Your task to perform on an android device: open app "Pinterest" (install if not already installed) Image 0: 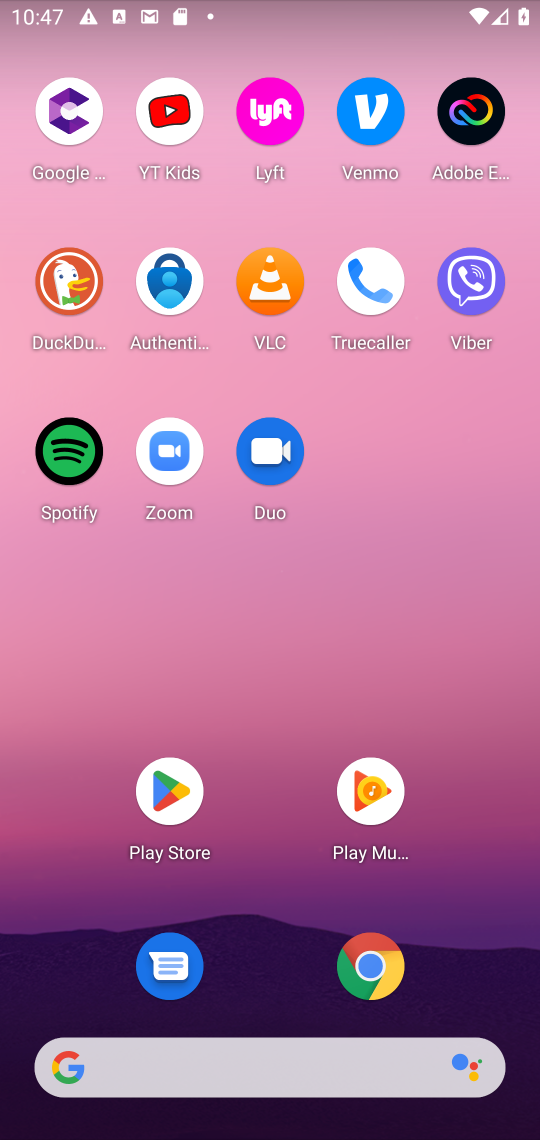
Step 0: click (176, 815)
Your task to perform on an android device: open app "Pinterest" (install if not already installed) Image 1: 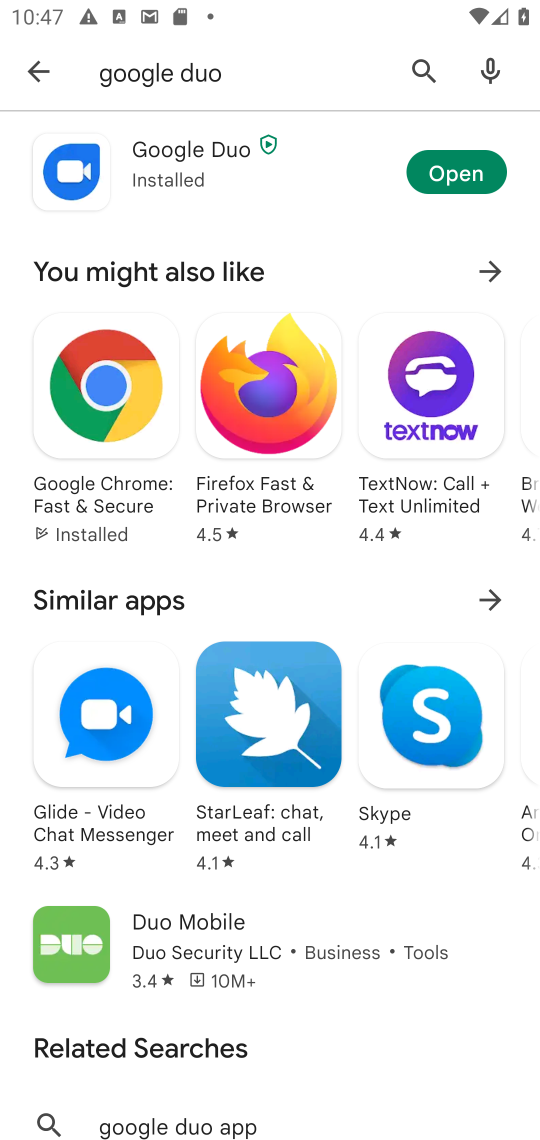
Step 1: click (409, 64)
Your task to perform on an android device: open app "Pinterest" (install if not already installed) Image 2: 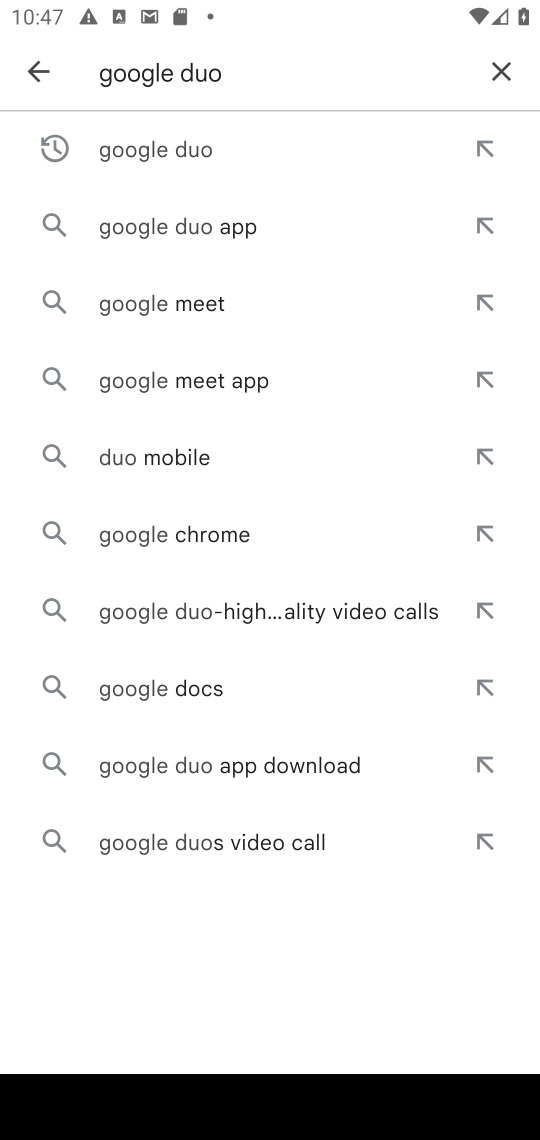
Step 2: click (501, 66)
Your task to perform on an android device: open app "Pinterest" (install if not already installed) Image 3: 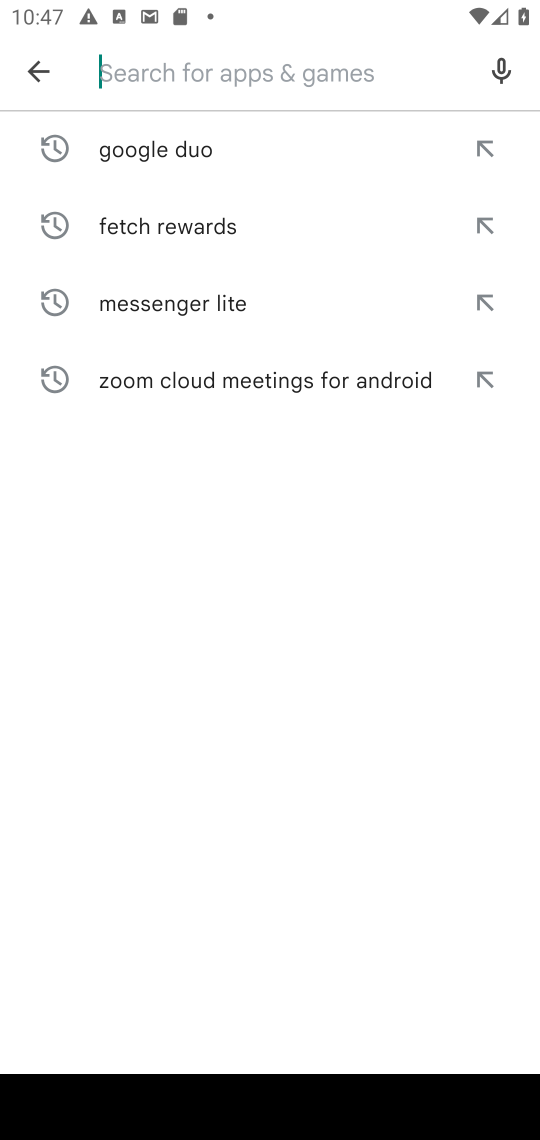
Step 3: type "Pinterest"
Your task to perform on an android device: open app "Pinterest" (install if not already installed) Image 4: 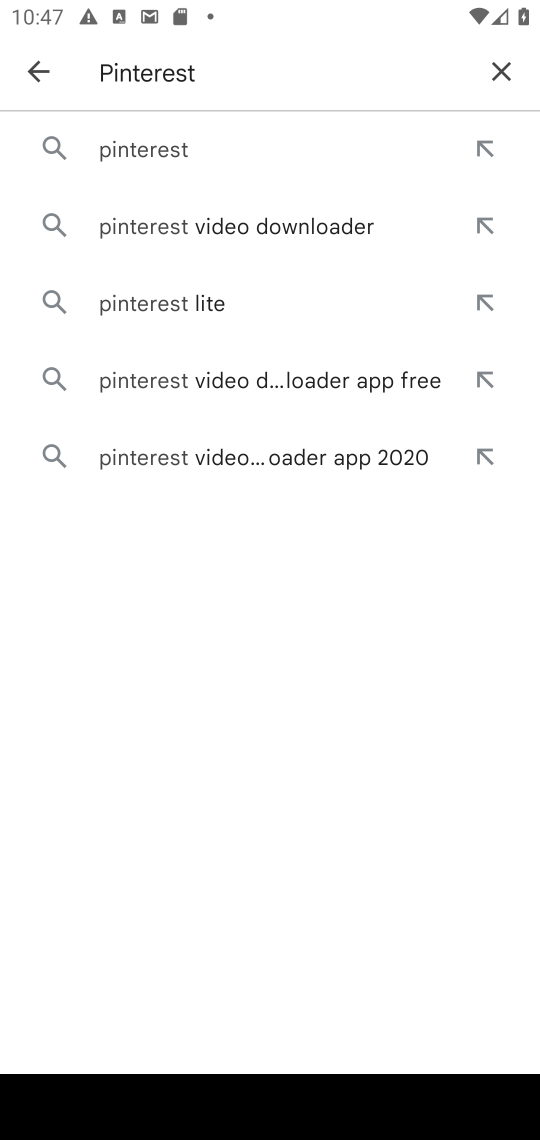
Step 4: click (168, 146)
Your task to perform on an android device: open app "Pinterest" (install if not already installed) Image 5: 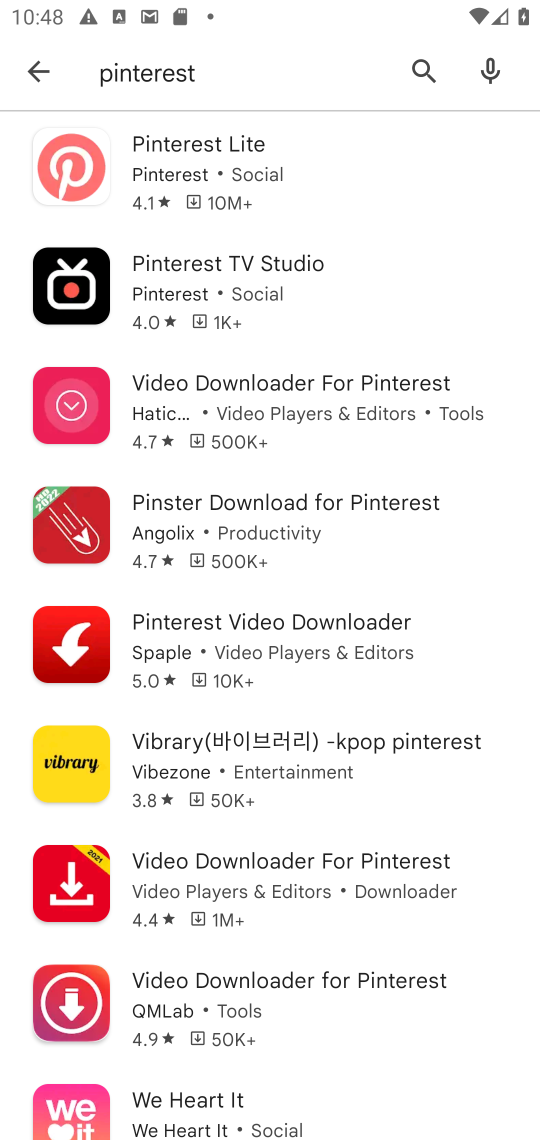
Step 5: click (185, 151)
Your task to perform on an android device: open app "Pinterest" (install if not already installed) Image 6: 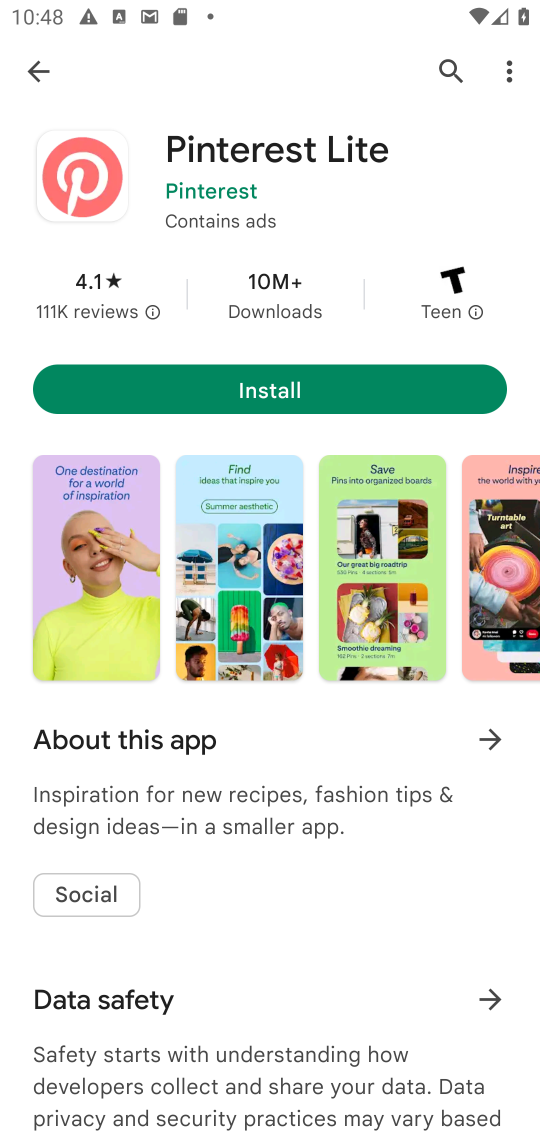
Step 6: click (251, 399)
Your task to perform on an android device: open app "Pinterest" (install if not already installed) Image 7: 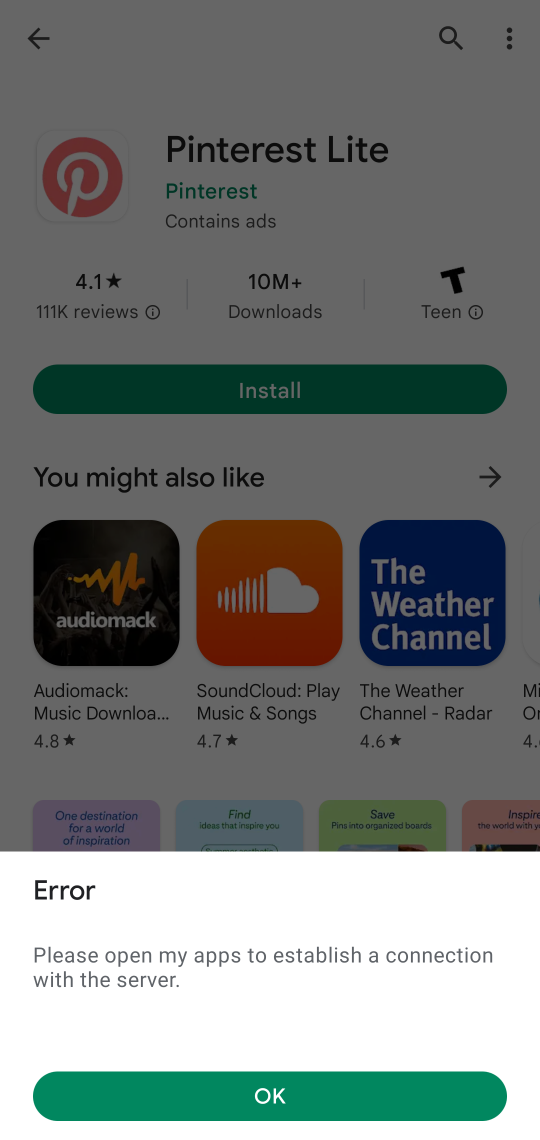
Step 7: task complete